Your task to perform on an android device: Open notification settings Image 0: 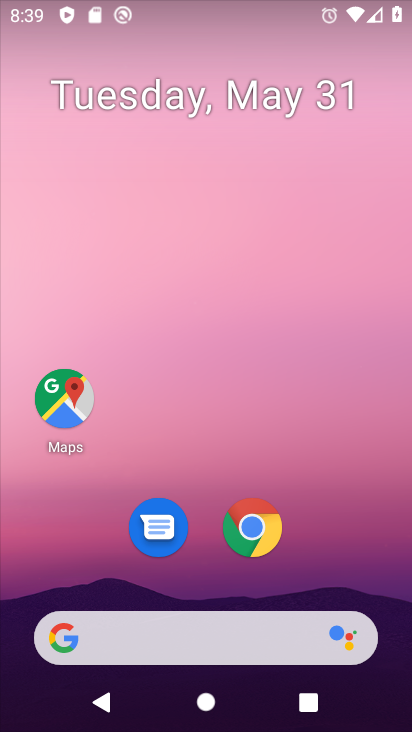
Step 0: drag from (168, 587) to (229, 71)
Your task to perform on an android device: Open notification settings Image 1: 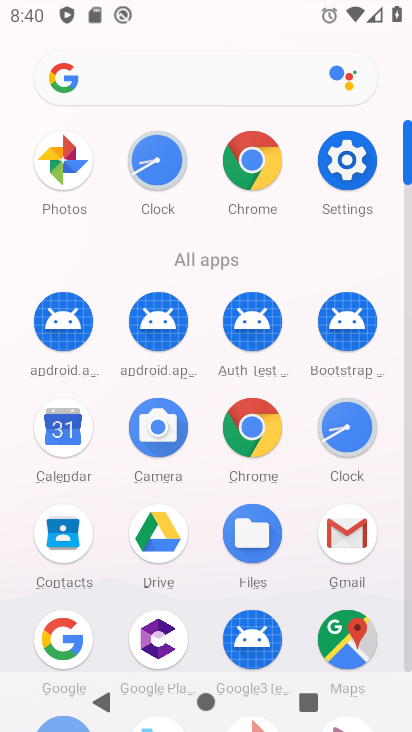
Step 1: click (341, 170)
Your task to perform on an android device: Open notification settings Image 2: 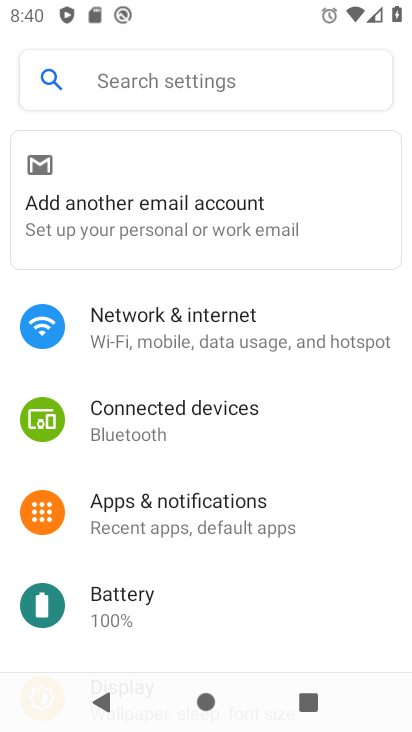
Step 2: click (144, 512)
Your task to perform on an android device: Open notification settings Image 3: 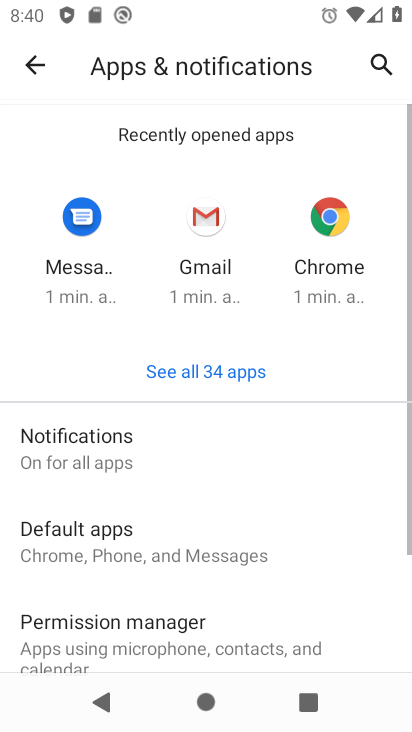
Step 3: click (128, 454)
Your task to perform on an android device: Open notification settings Image 4: 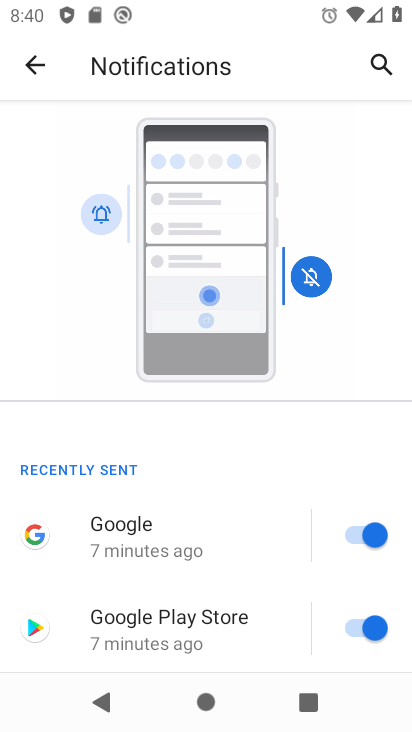
Step 4: task complete